Your task to perform on an android device: turn pop-ups off in chrome Image 0: 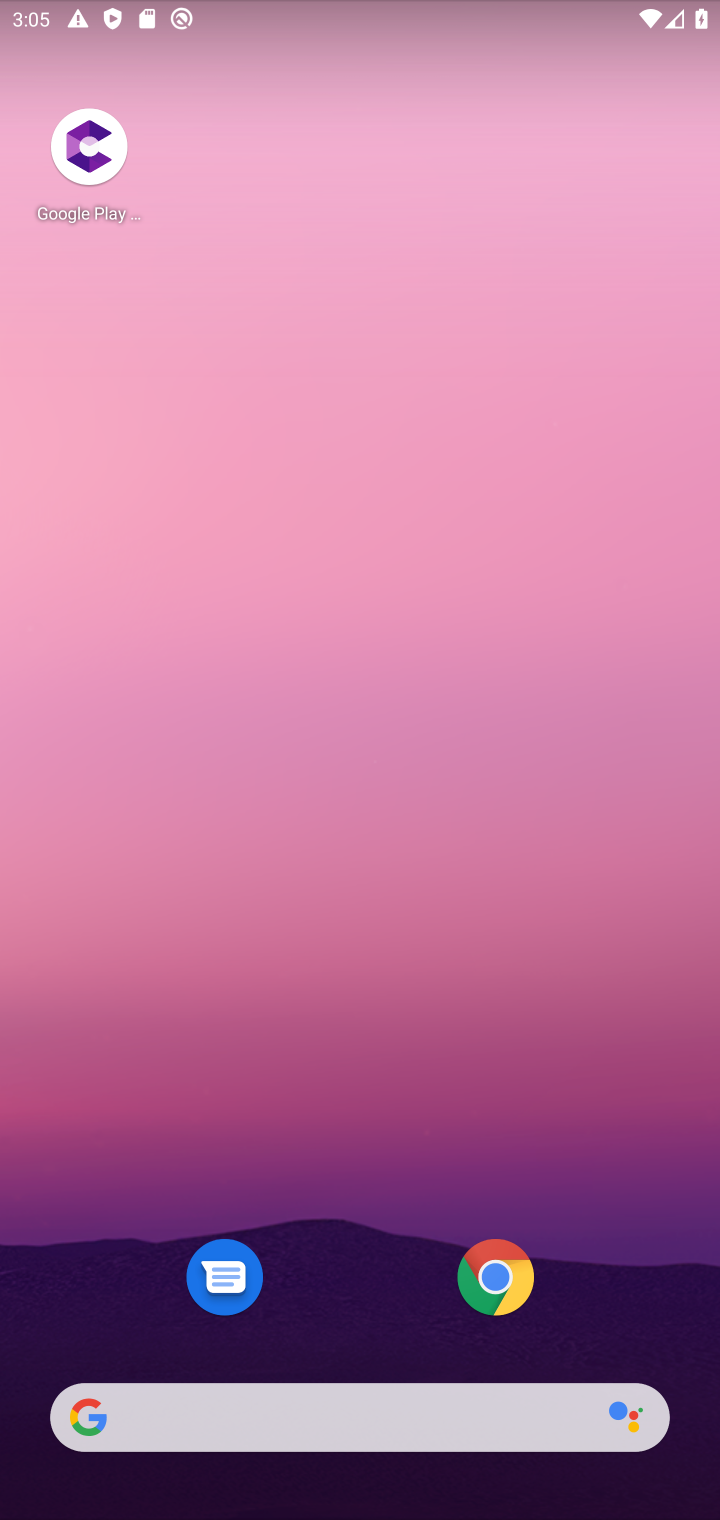
Step 0: drag from (452, 1420) to (451, 94)
Your task to perform on an android device: turn pop-ups off in chrome Image 1: 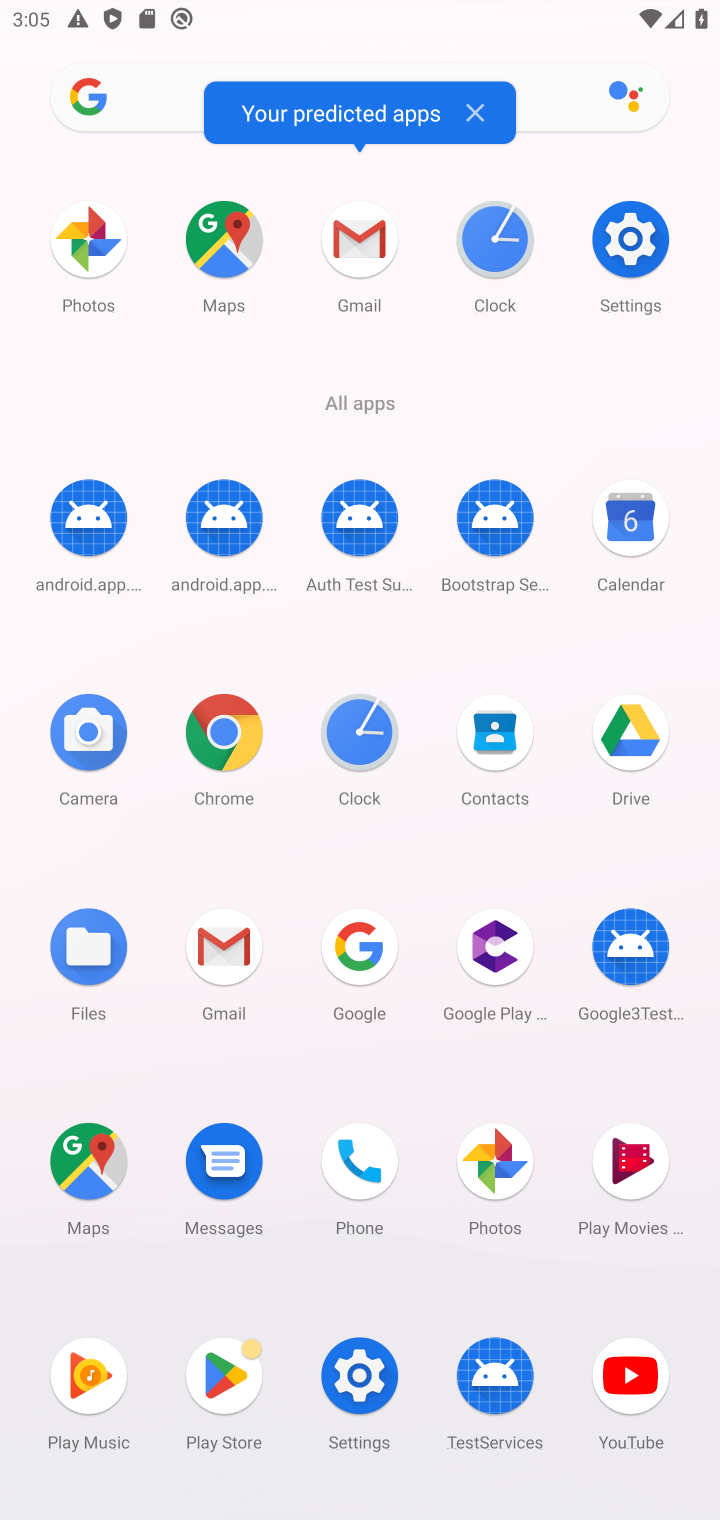
Step 1: click (227, 734)
Your task to perform on an android device: turn pop-ups off in chrome Image 2: 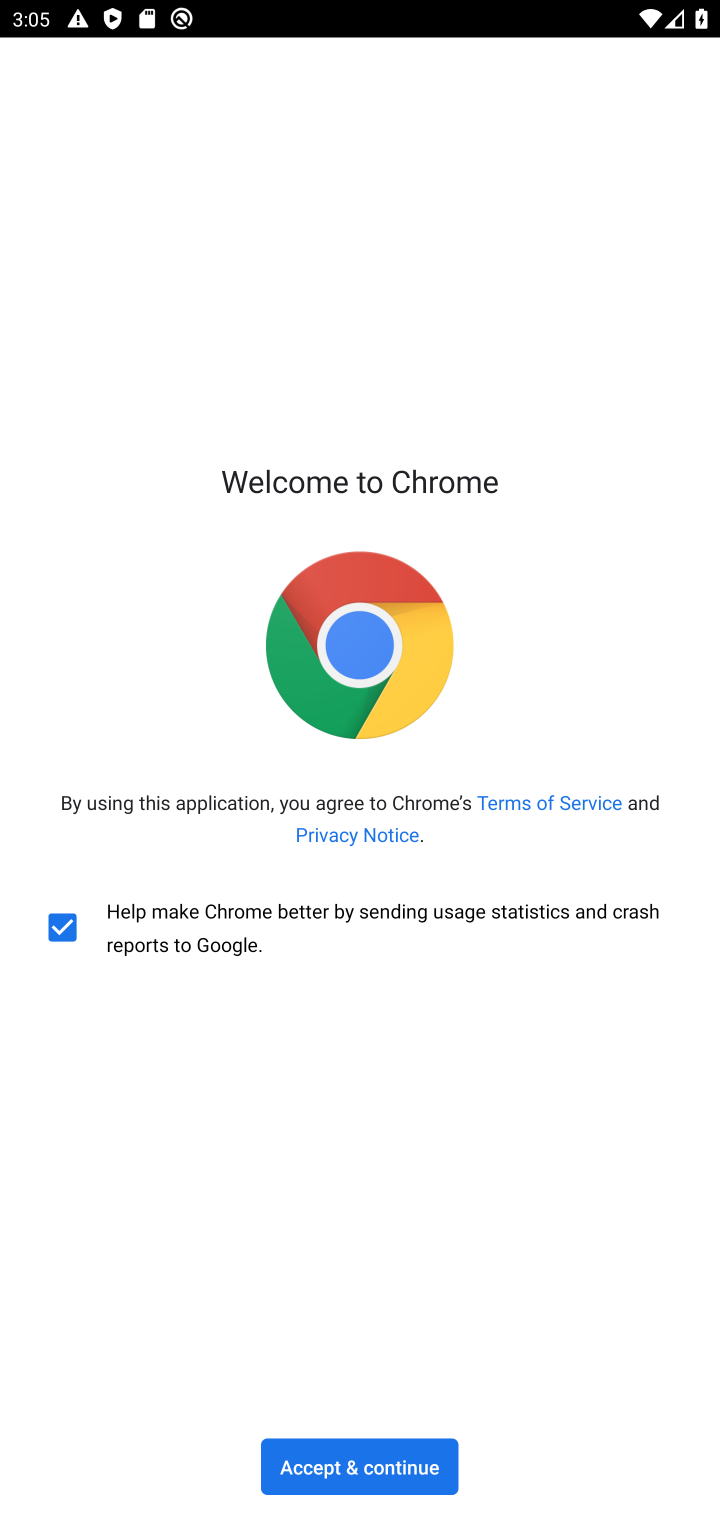
Step 2: click (376, 1470)
Your task to perform on an android device: turn pop-ups off in chrome Image 3: 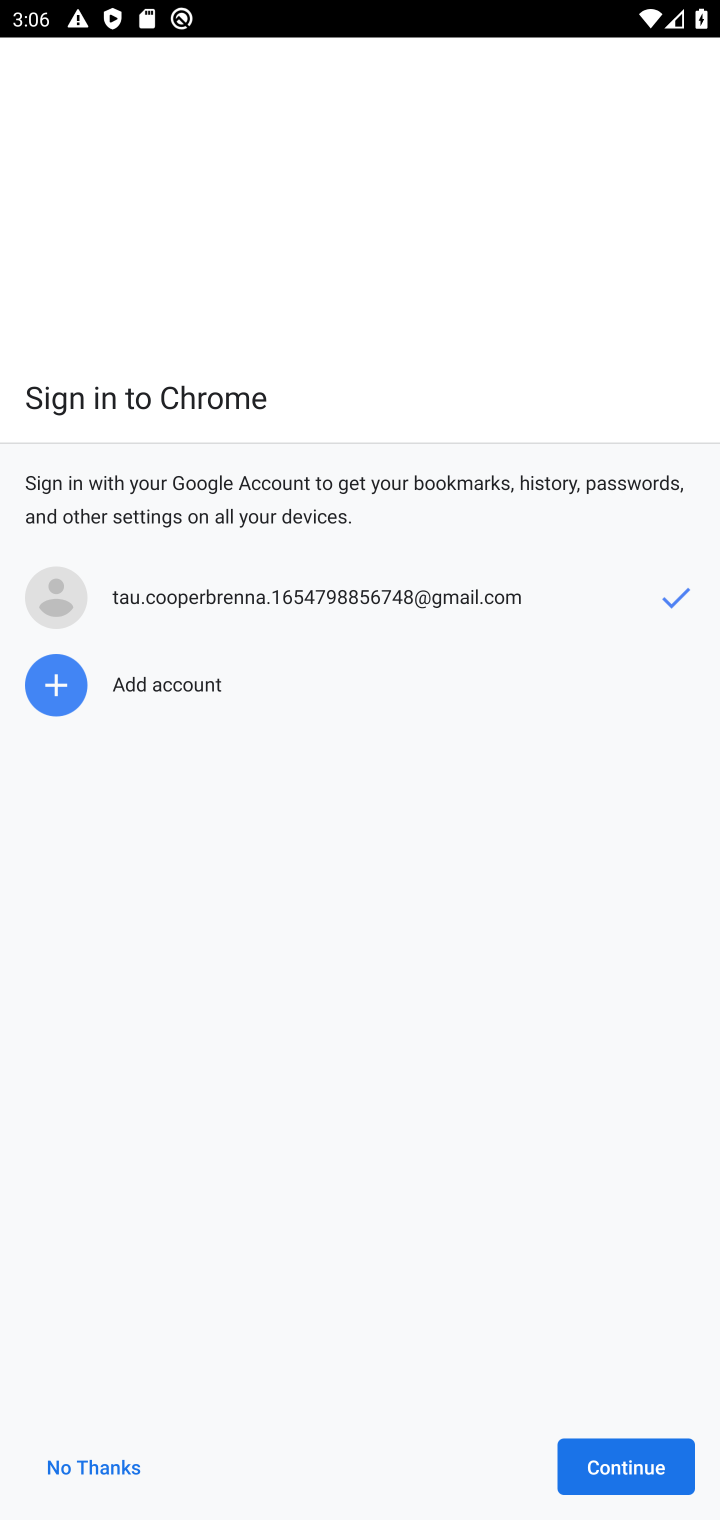
Step 3: click (109, 1449)
Your task to perform on an android device: turn pop-ups off in chrome Image 4: 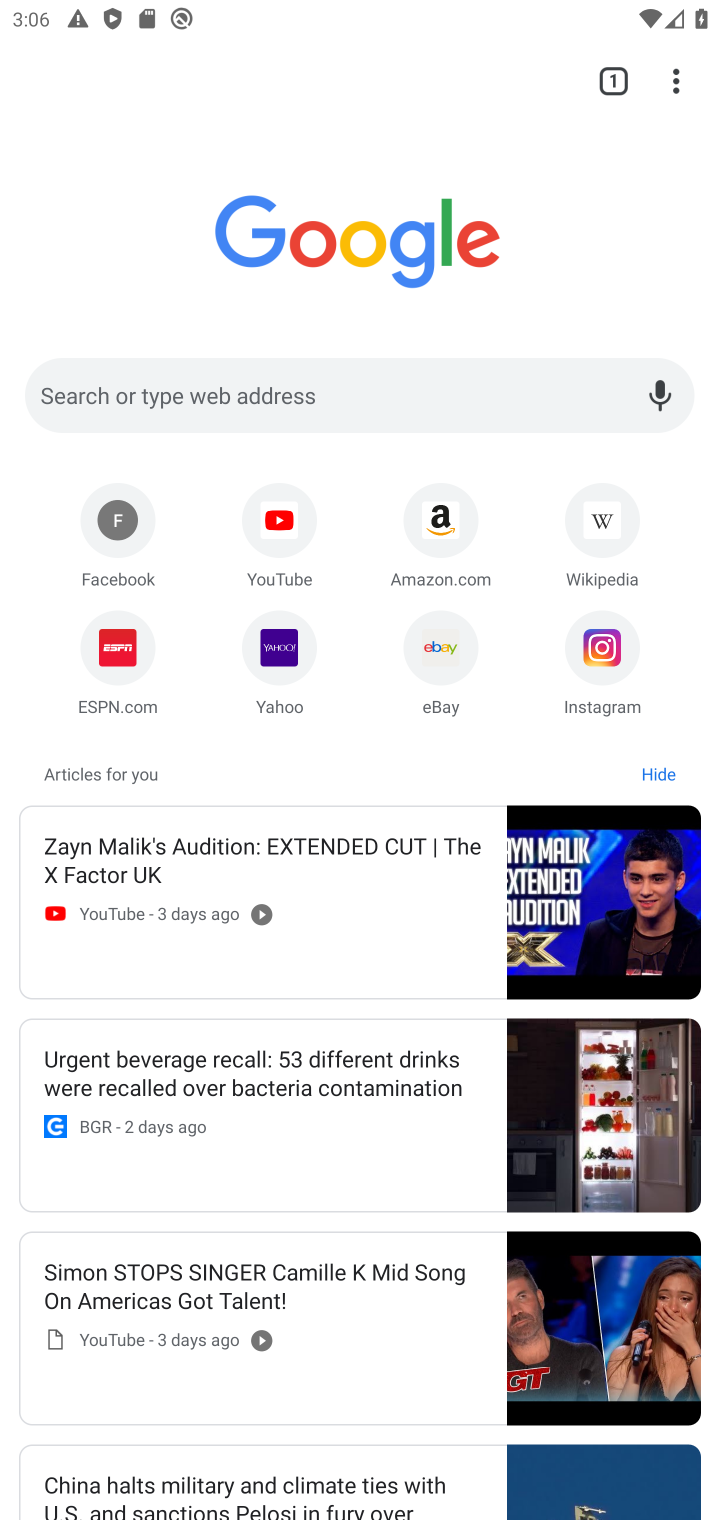
Step 4: drag from (678, 75) to (431, 683)
Your task to perform on an android device: turn pop-ups off in chrome Image 5: 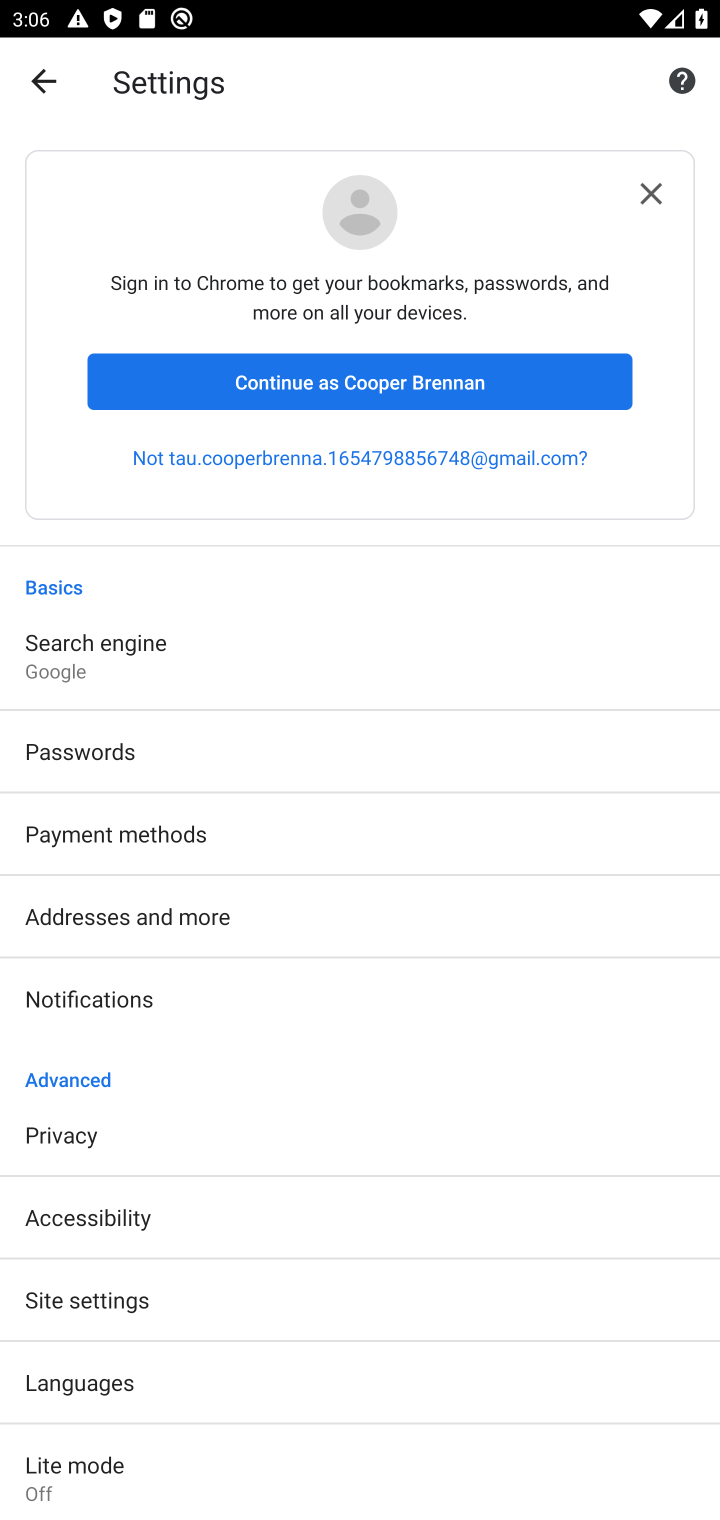
Step 5: click (211, 1290)
Your task to perform on an android device: turn pop-ups off in chrome Image 6: 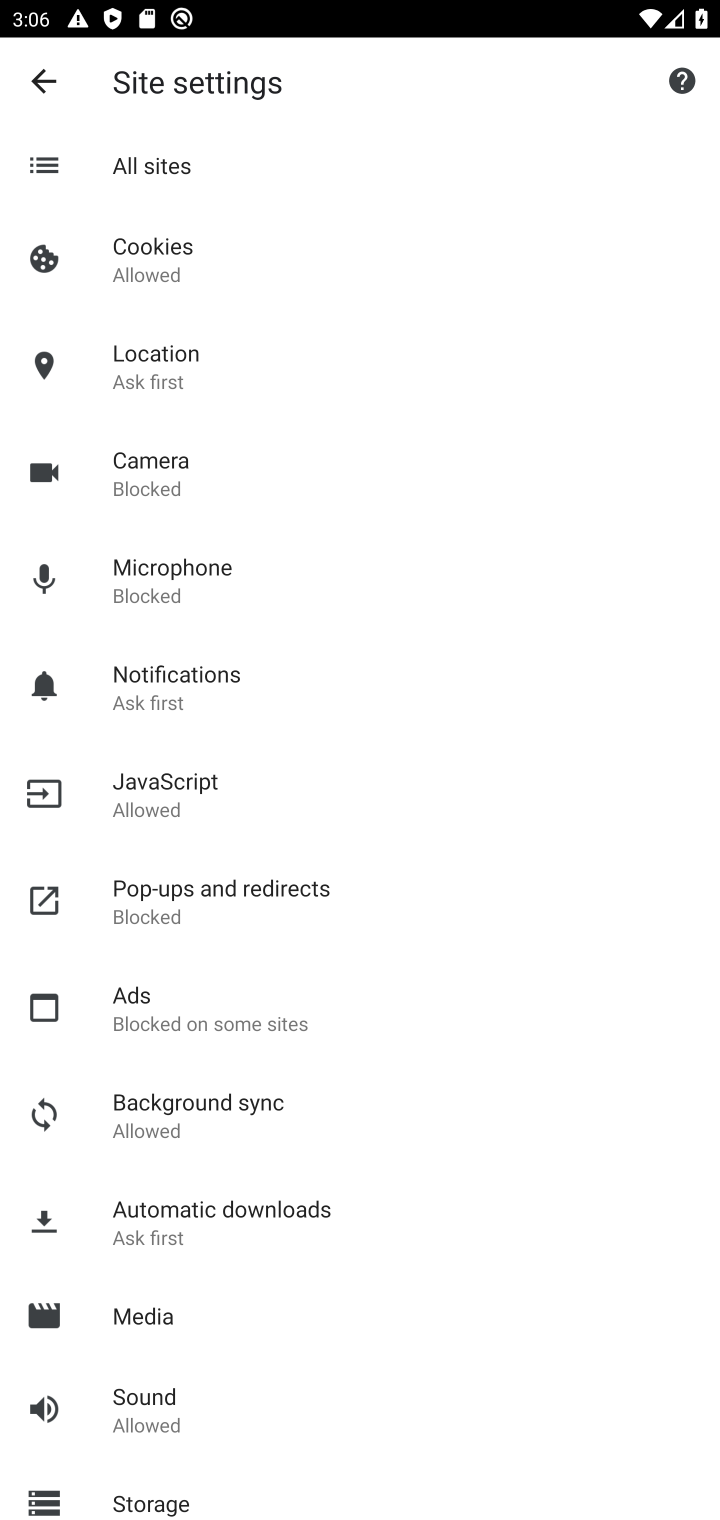
Step 6: click (219, 888)
Your task to perform on an android device: turn pop-ups off in chrome Image 7: 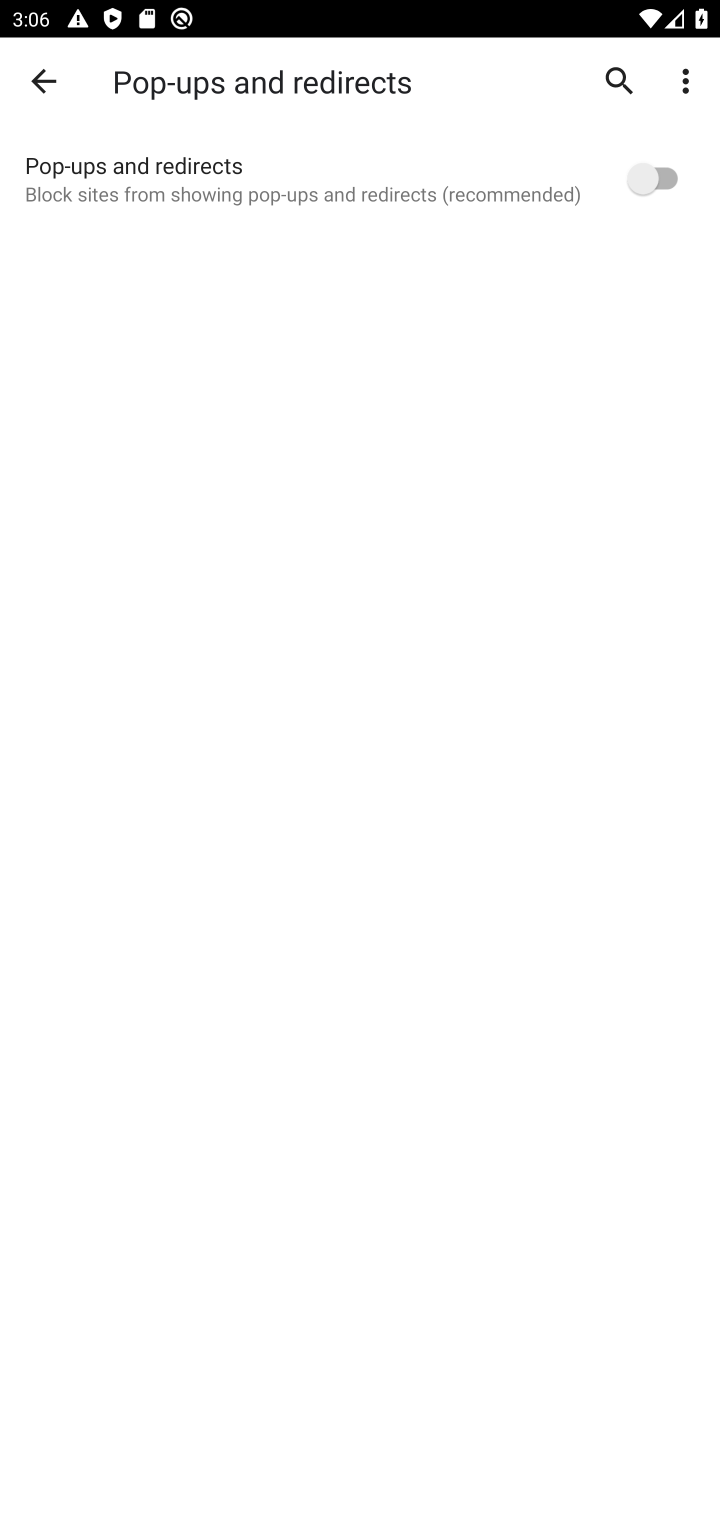
Step 7: task complete